Your task to perform on an android device: turn on wifi Image 0: 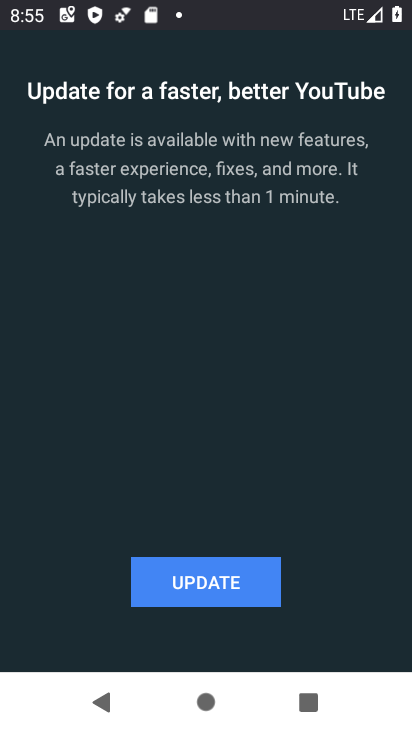
Step 0: press home button
Your task to perform on an android device: turn on wifi Image 1: 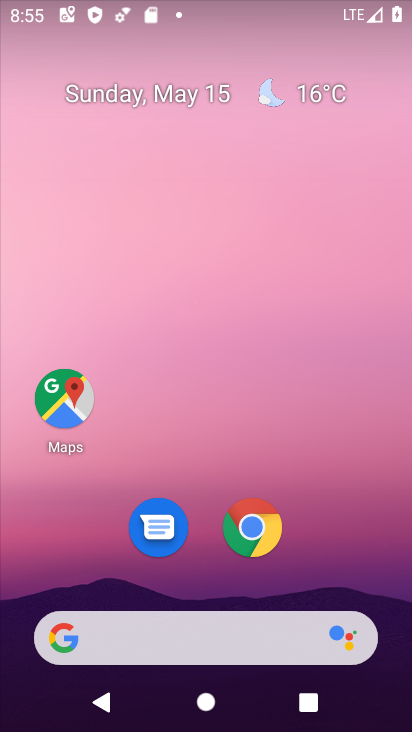
Step 1: drag from (367, 592) to (340, 0)
Your task to perform on an android device: turn on wifi Image 2: 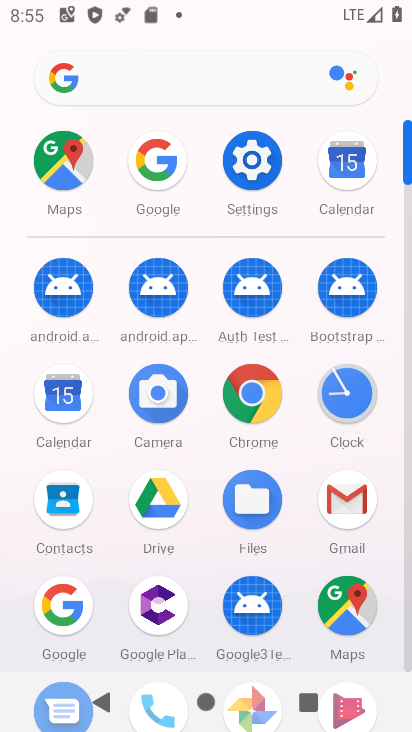
Step 2: click (258, 167)
Your task to perform on an android device: turn on wifi Image 3: 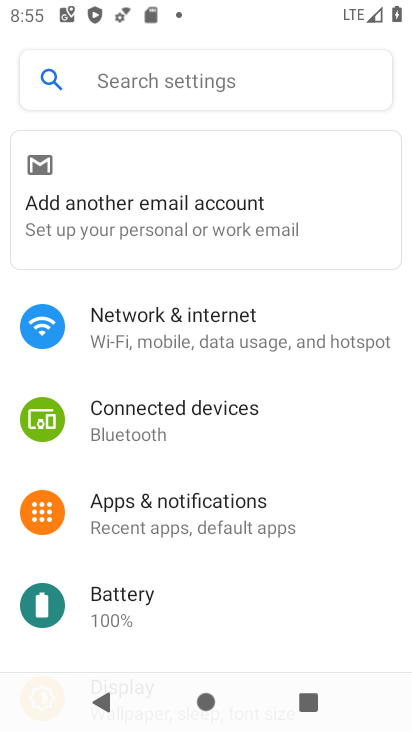
Step 3: click (148, 333)
Your task to perform on an android device: turn on wifi Image 4: 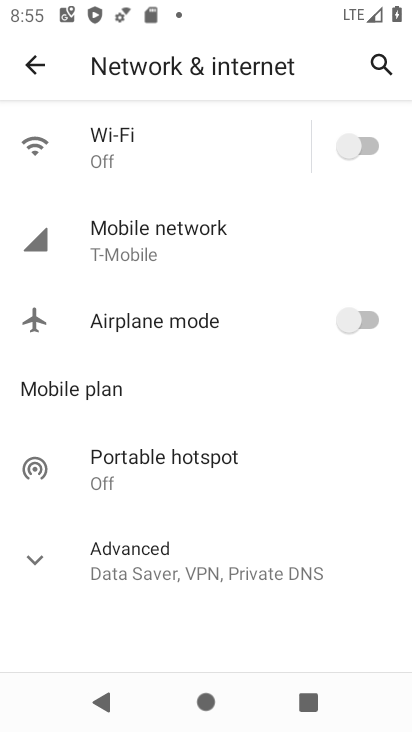
Step 4: click (355, 145)
Your task to perform on an android device: turn on wifi Image 5: 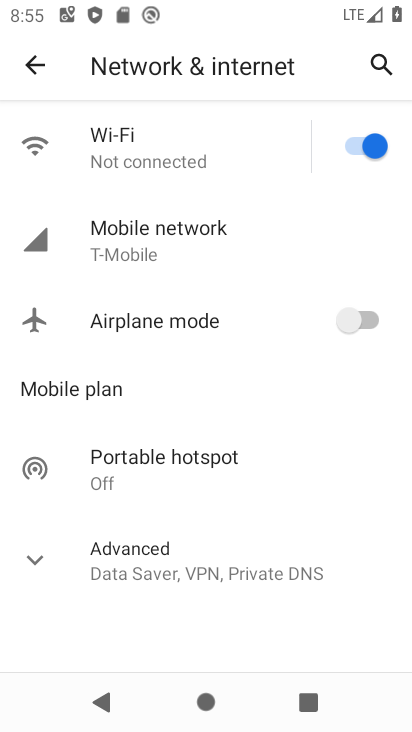
Step 5: task complete